Your task to perform on an android device: Open Reddit.com Image 0: 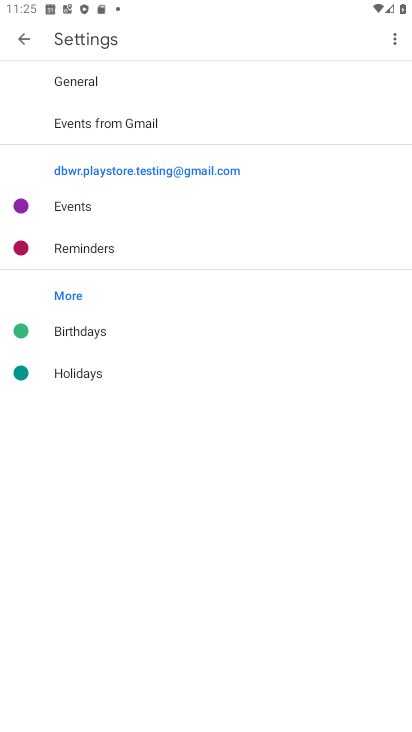
Step 0: press home button
Your task to perform on an android device: Open Reddit.com Image 1: 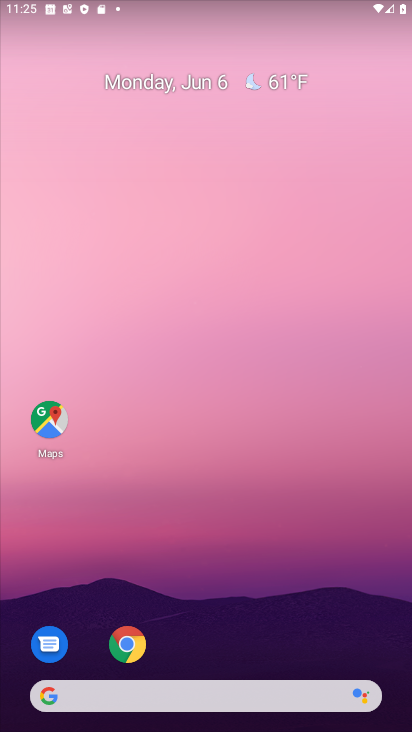
Step 1: drag from (231, 673) to (221, 207)
Your task to perform on an android device: Open Reddit.com Image 2: 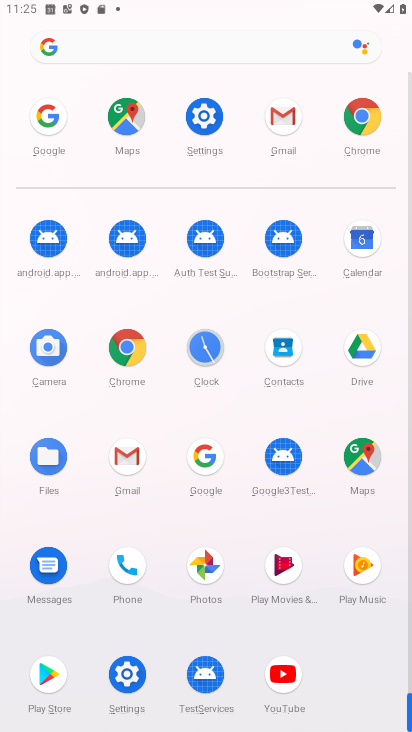
Step 2: click (362, 147)
Your task to perform on an android device: Open Reddit.com Image 3: 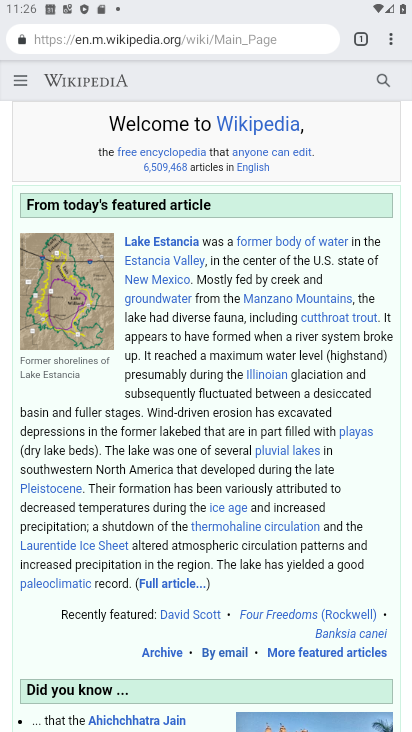
Step 3: click (284, 55)
Your task to perform on an android device: Open Reddit.com Image 4: 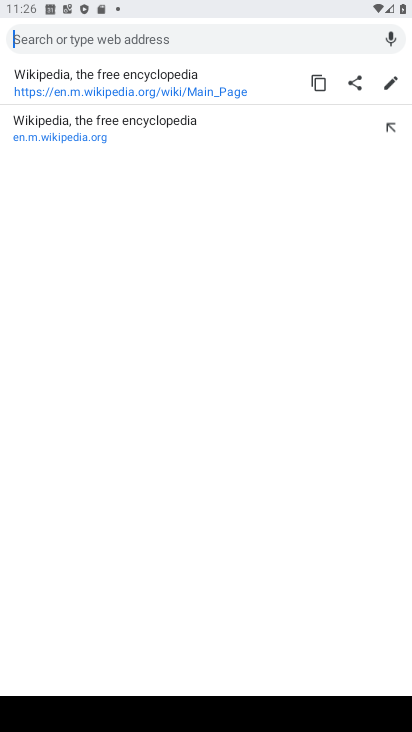
Step 4: type "reddit"
Your task to perform on an android device: Open Reddit.com Image 5: 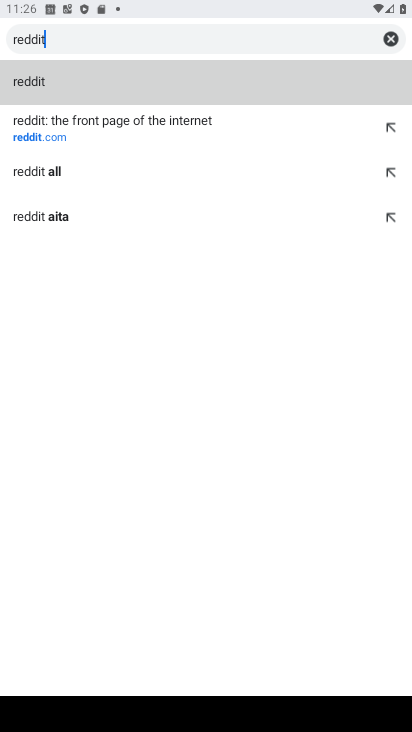
Step 5: click (99, 138)
Your task to perform on an android device: Open Reddit.com Image 6: 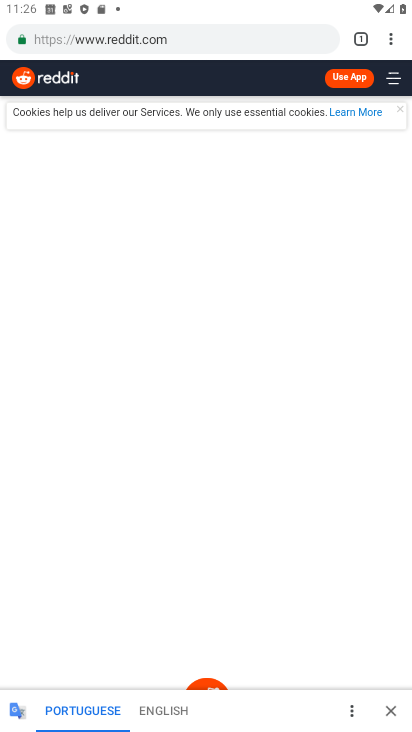
Step 6: task complete